Your task to perform on an android device: Is it going to rain this weekend? Image 0: 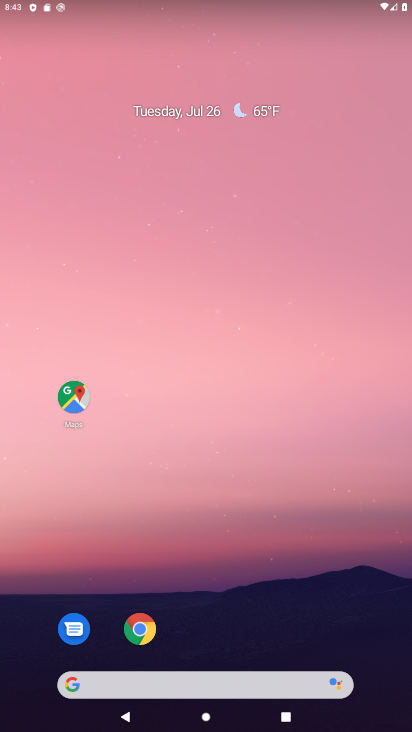
Step 0: click (277, 112)
Your task to perform on an android device: Is it going to rain this weekend? Image 1: 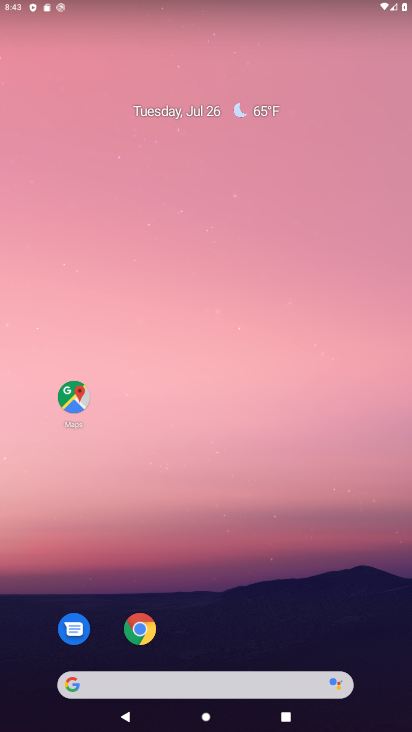
Step 1: click (272, 114)
Your task to perform on an android device: Is it going to rain this weekend? Image 2: 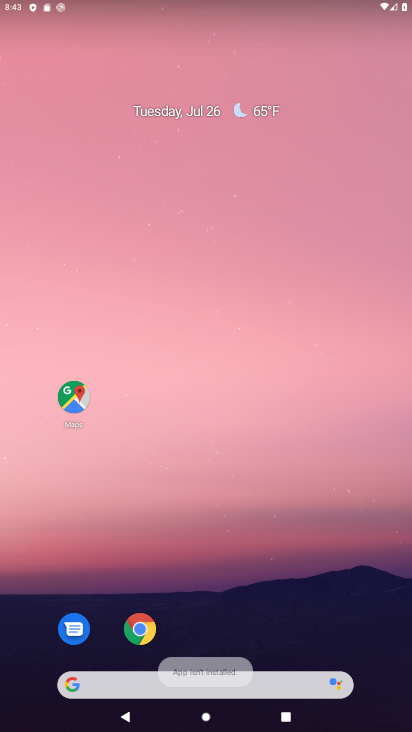
Step 2: drag from (289, 595) to (299, 99)
Your task to perform on an android device: Is it going to rain this weekend? Image 3: 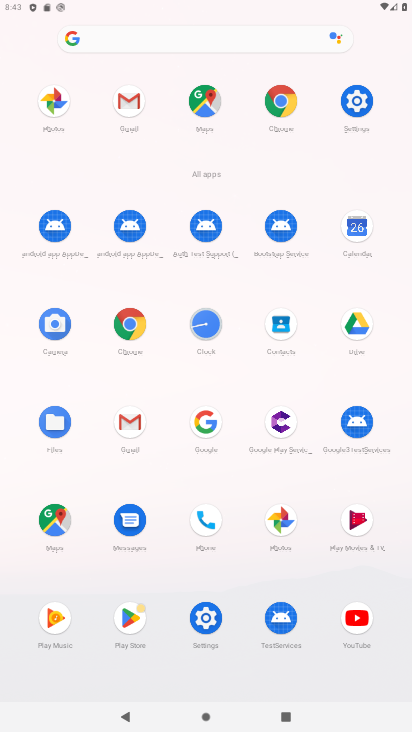
Step 3: click (274, 95)
Your task to perform on an android device: Is it going to rain this weekend? Image 4: 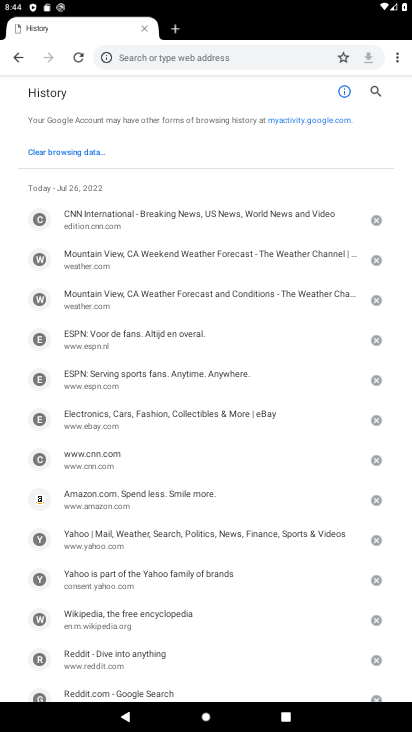
Step 4: click (217, 57)
Your task to perform on an android device: Is it going to rain this weekend? Image 5: 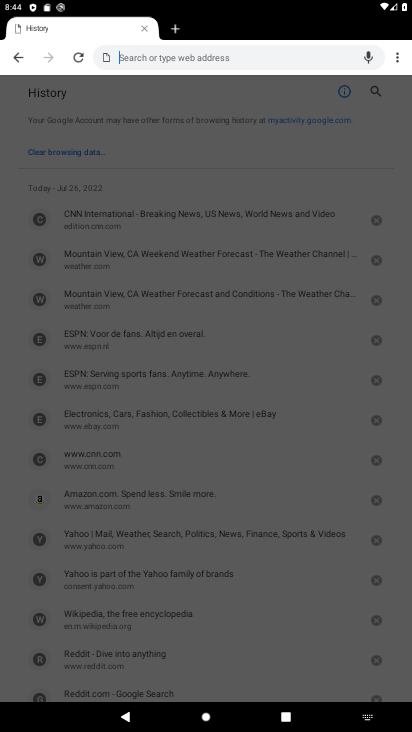
Step 5: type "weather"
Your task to perform on an android device: Is it going to rain this weekend? Image 6: 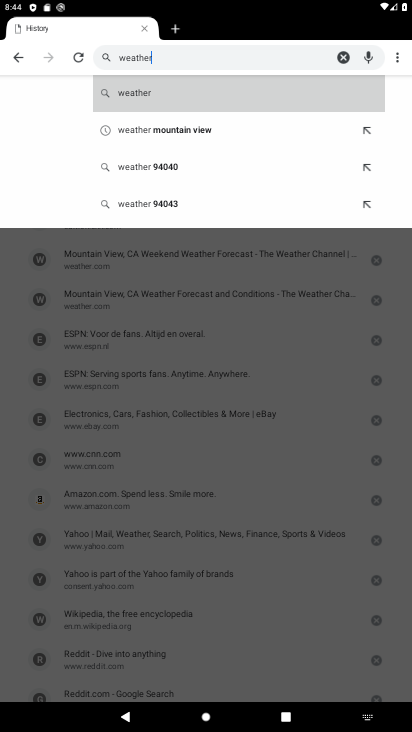
Step 6: click (130, 95)
Your task to perform on an android device: Is it going to rain this weekend? Image 7: 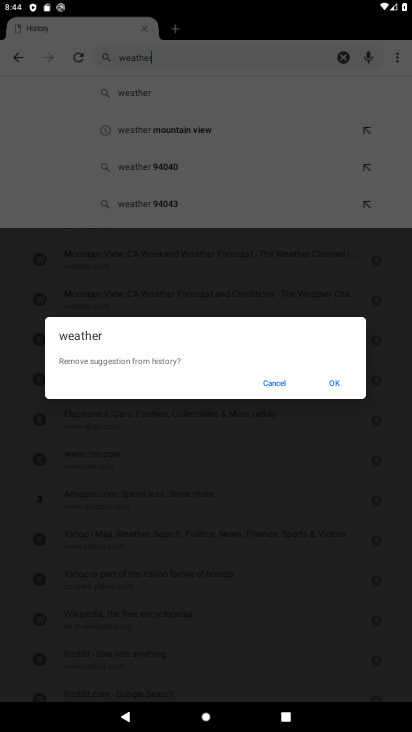
Step 7: click (272, 376)
Your task to perform on an android device: Is it going to rain this weekend? Image 8: 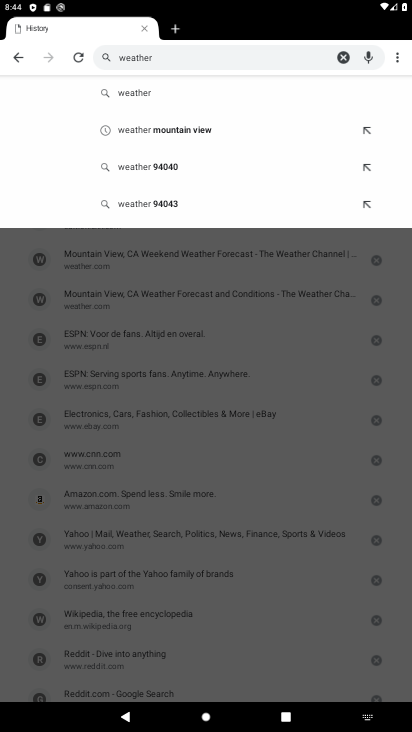
Step 8: click (139, 95)
Your task to perform on an android device: Is it going to rain this weekend? Image 9: 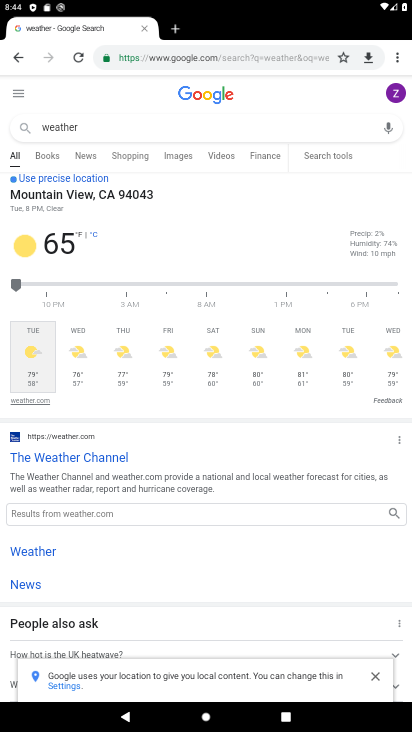
Step 9: click (167, 361)
Your task to perform on an android device: Is it going to rain this weekend? Image 10: 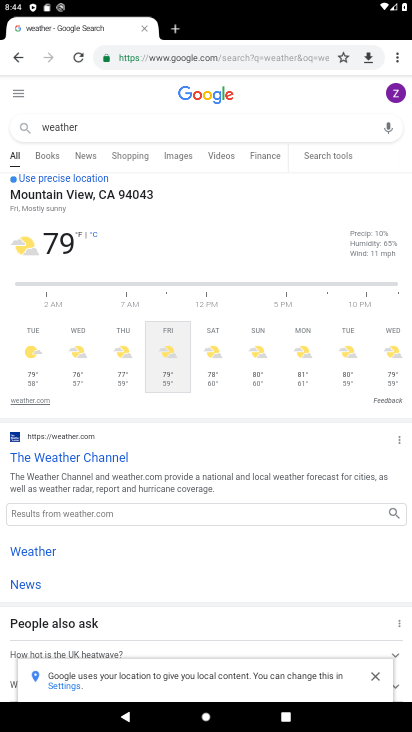
Step 10: click (219, 357)
Your task to perform on an android device: Is it going to rain this weekend? Image 11: 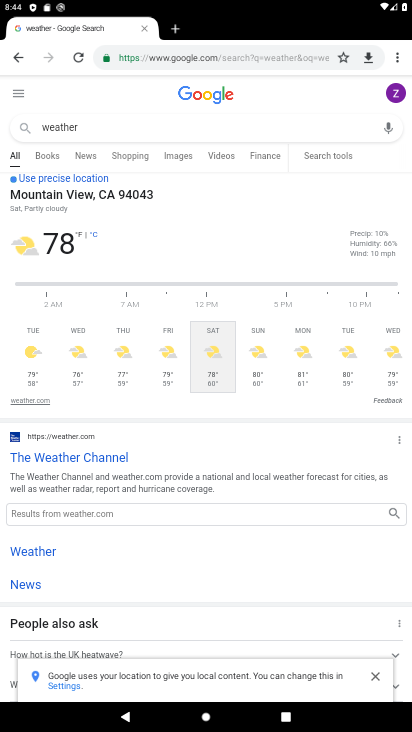
Step 11: task complete